Your task to perform on an android device: Open calendar and show me the third week of next month Image 0: 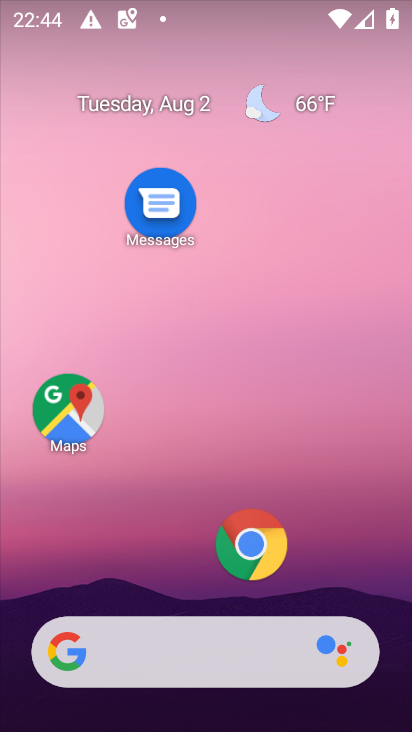
Step 0: drag from (178, 570) to (197, 178)
Your task to perform on an android device: Open calendar and show me the third week of next month Image 1: 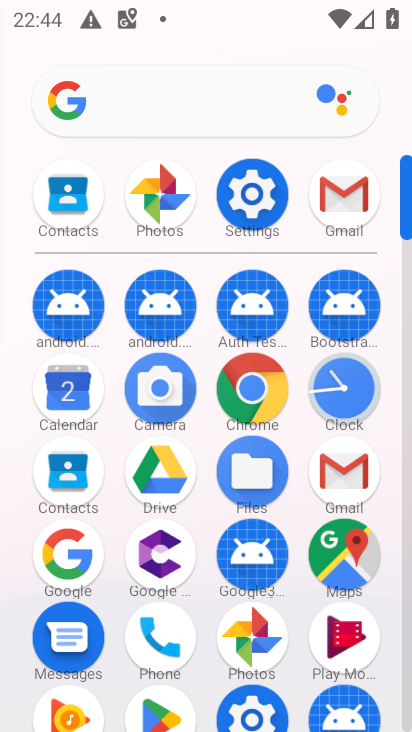
Step 1: click (76, 399)
Your task to perform on an android device: Open calendar and show me the third week of next month Image 2: 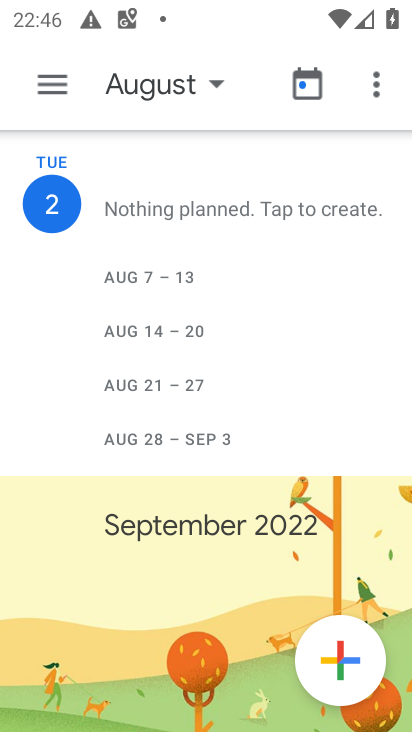
Step 2: click (211, 95)
Your task to perform on an android device: Open calendar and show me the third week of next month Image 3: 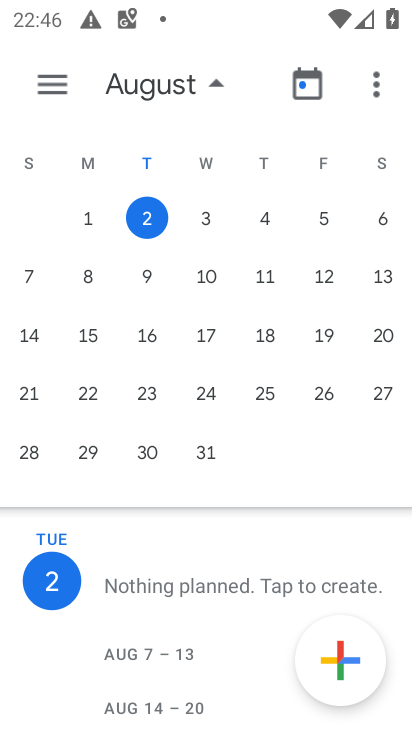
Step 3: drag from (351, 304) to (9, 307)
Your task to perform on an android device: Open calendar and show me the third week of next month Image 4: 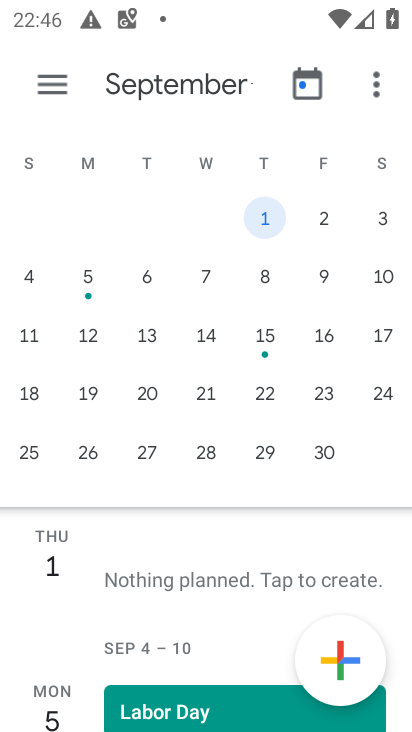
Step 4: click (30, 330)
Your task to perform on an android device: Open calendar and show me the third week of next month Image 5: 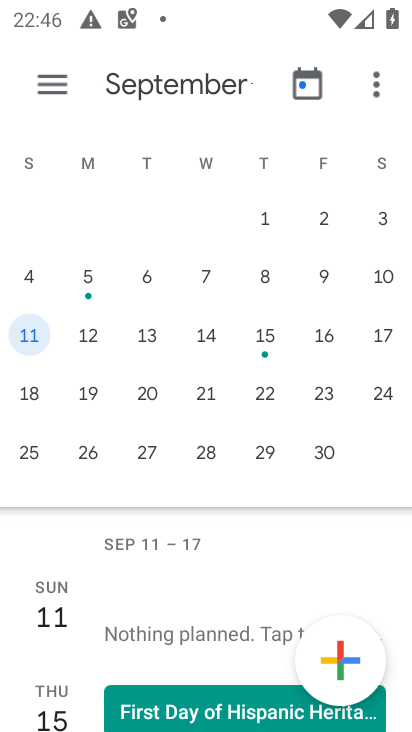
Step 5: task complete